Your task to perform on an android device: Open battery settings Image 0: 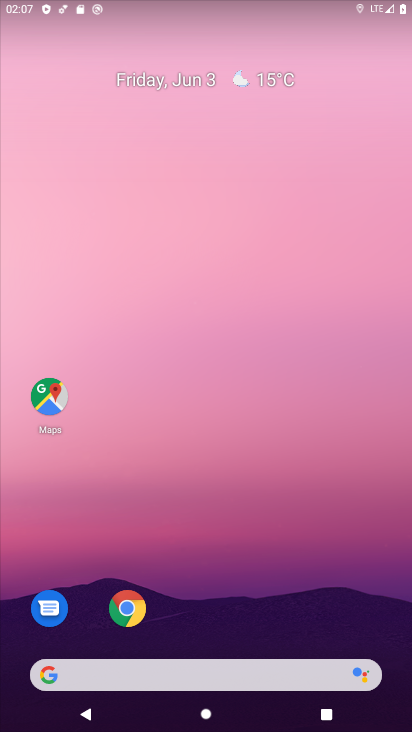
Step 0: drag from (256, 594) to (209, 219)
Your task to perform on an android device: Open battery settings Image 1: 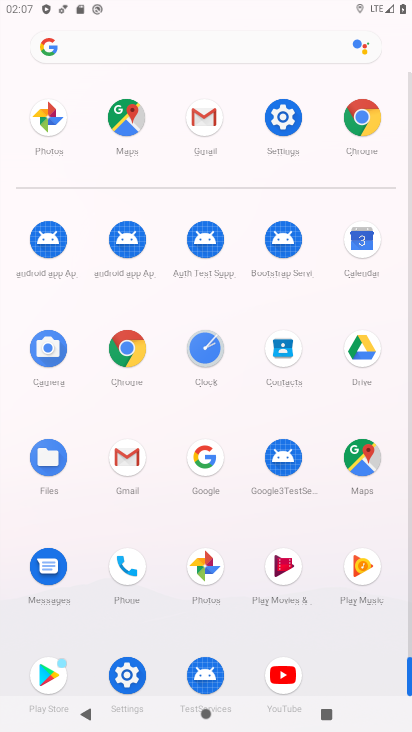
Step 1: click (271, 123)
Your task to perform on an android device: Open battery settings Image 2: 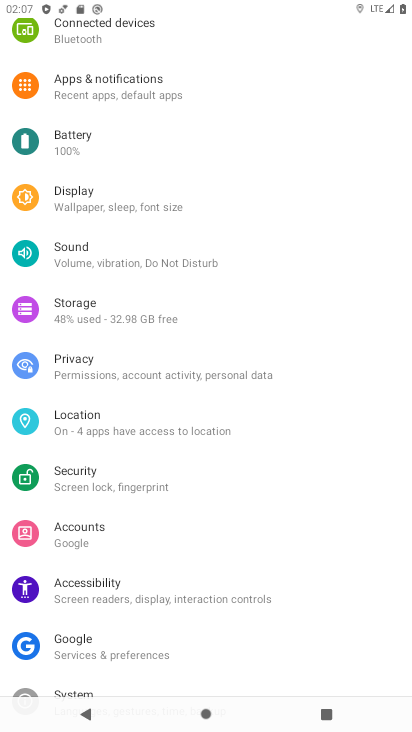
Step 2: click (78, 144)
Your task to perform on an android device: Open battery settings Image 3: 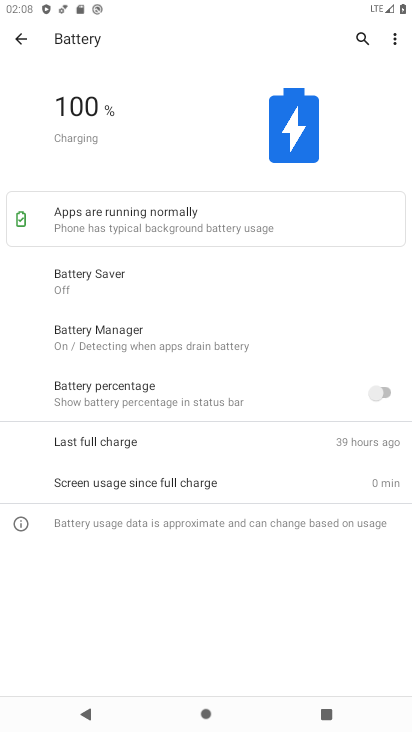
Step 3: task complete